Your task to perform on an android device: When is my next appointment? Image 0: 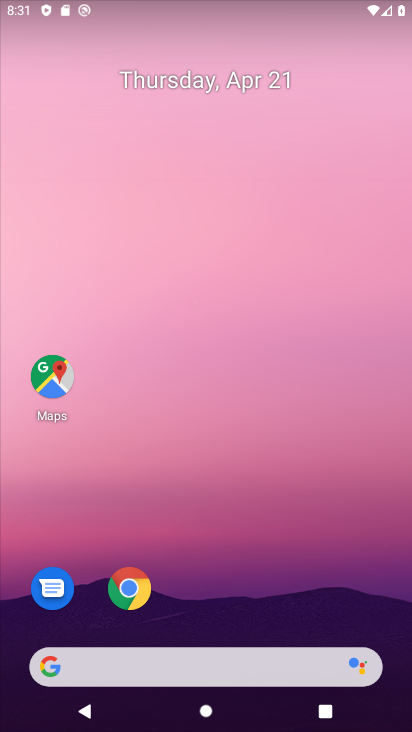
Step 0: drag from (219, 577) to (162, 54)
Your task to perform on an android device: When is my next appointment? Image 1: 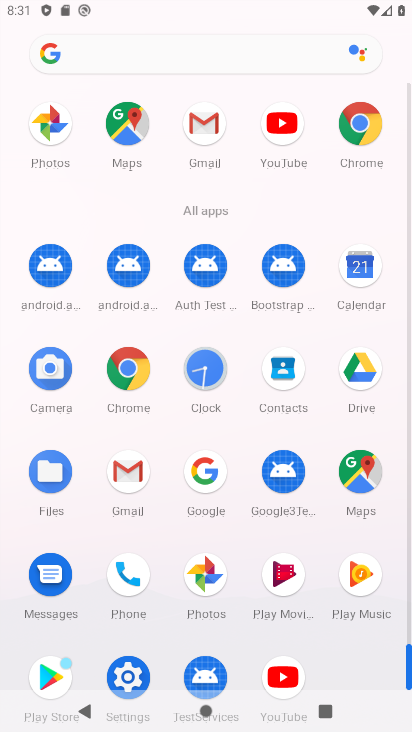
Step 1: drag from (15, 515) to (8, 268)
Your task to perform on an android device: When is my next appointment? Image 2: 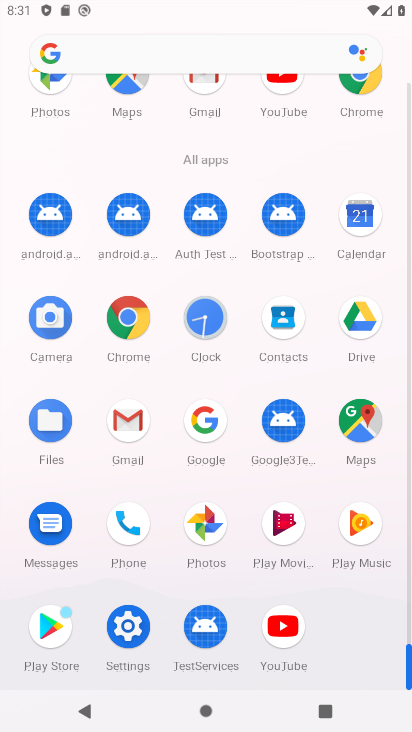
Step 2: drag from (6, 517) to (2, 273)
Your task to perform on an android device: When is my next appointment? Image 3: 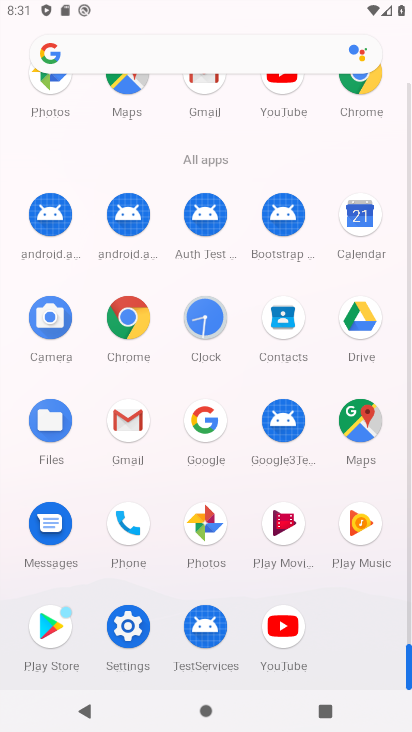
Step 3: click (359, 217)
Your task to perform on an android device: When is my next appointment? Image 4: 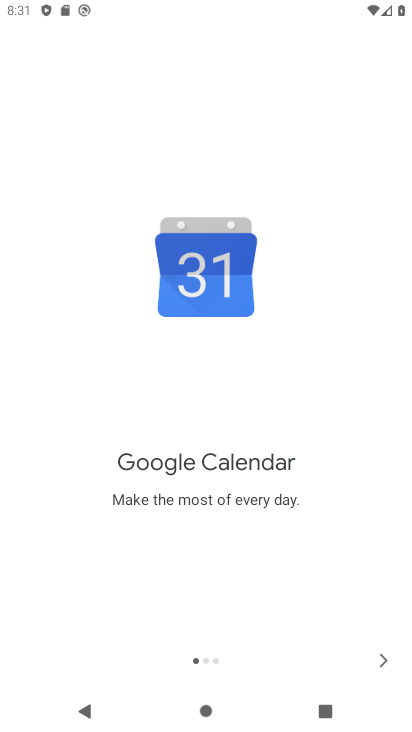
Step 4: click (389, 653)
Your task to perform on an android device: When is my next appointment? Image 5: 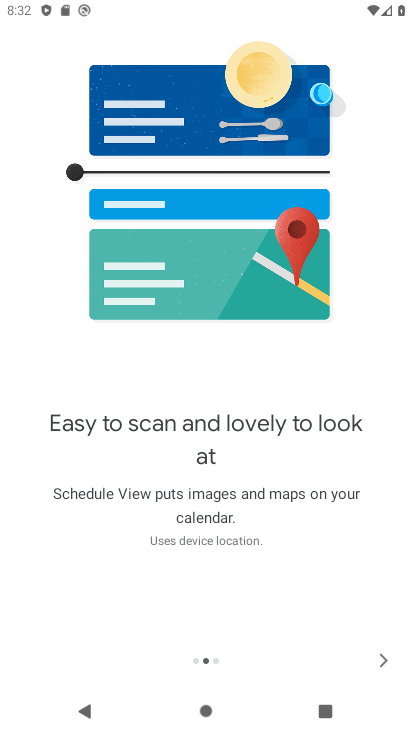
Step 5: click (374, 650)
Your task to perform on an android device: When is my next appointment? Image 6: 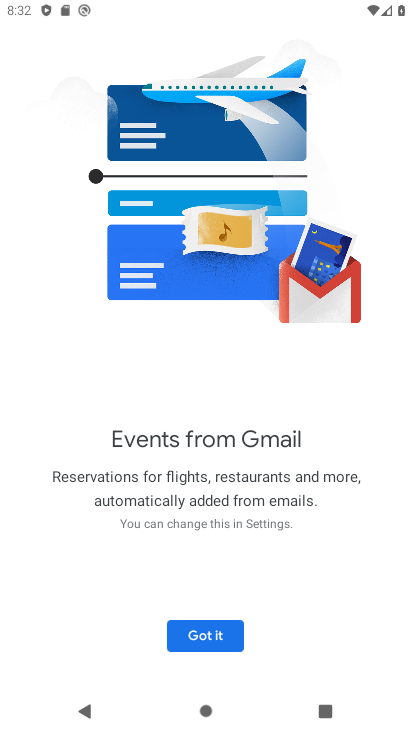
Step 6: click (226, 632)
Your task to perform on an android device: When is my next appointment? Image 7: 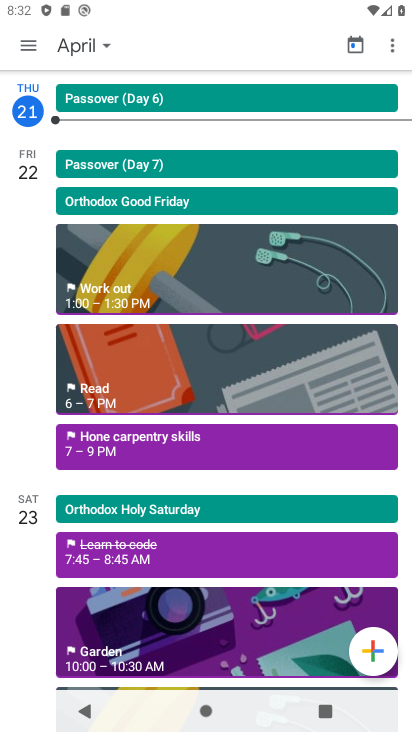
Step 7: click (86, 44)
Your task to perform on an android device: When is my next appointment? Image 8: 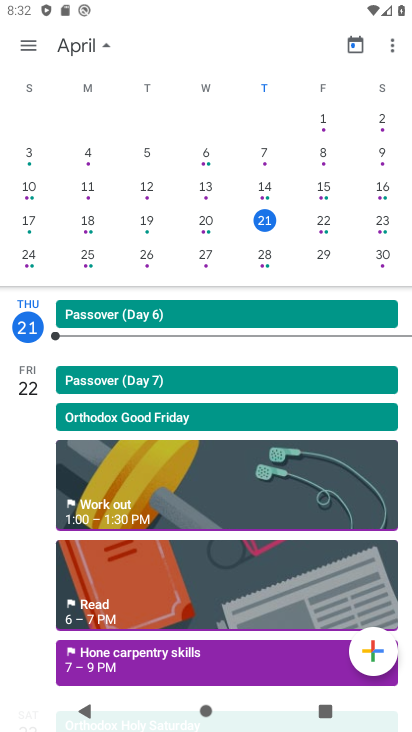
Step 8: click (36, 42)
Your task to perform on an android device: When is my next appointment? Image 9: 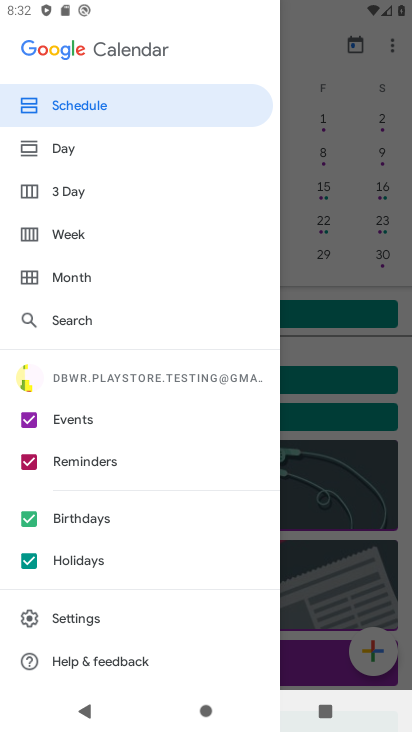
Step 9: click (31, 522)
Your task to perform on an android device: When is my next appointment? Image 10: 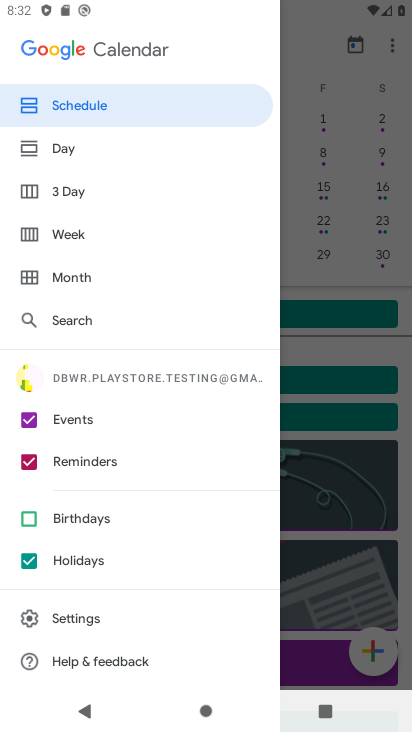
Step 10: click (28, 567)
Your task to perform on an android device: When is my next appointment? Image 11: 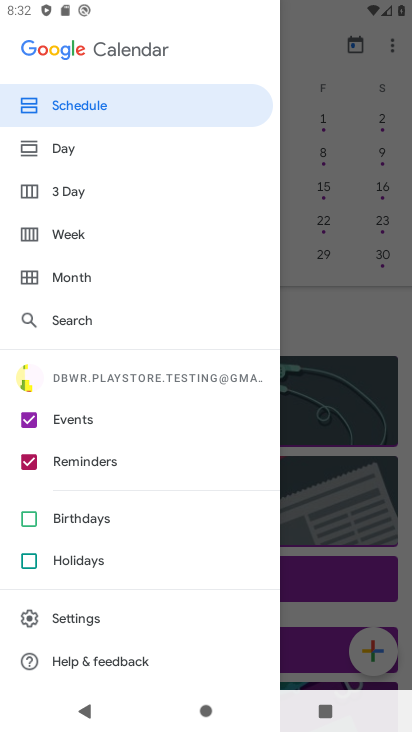
Step 11: click (31, 418)
Your task to perform on an android device: When is my next appointment? Image 12: 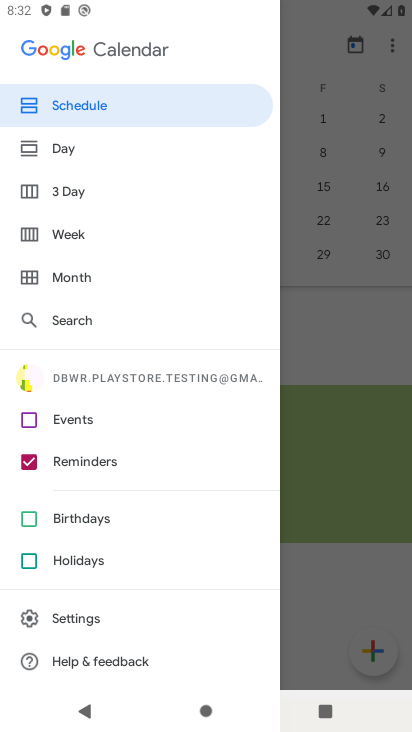
Step 12: click (374, 227)
Your task to perform on an android device: When is my next appointment? Image 13: 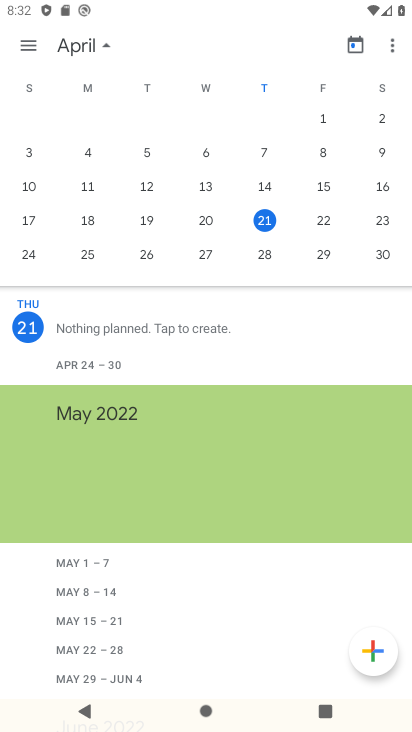
Step 13: click (18, 45)
Your task to perform on an android device: When is my next appointment? Image 14: 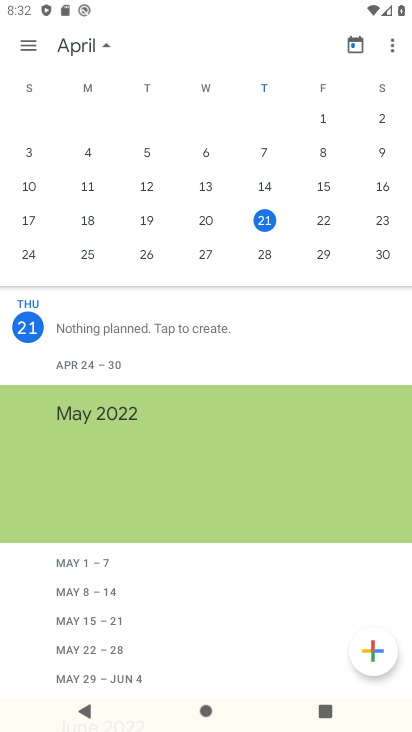
Step 14: click (37, 60)
Your task to perform on an android device: When is my next appointment? Image 15: 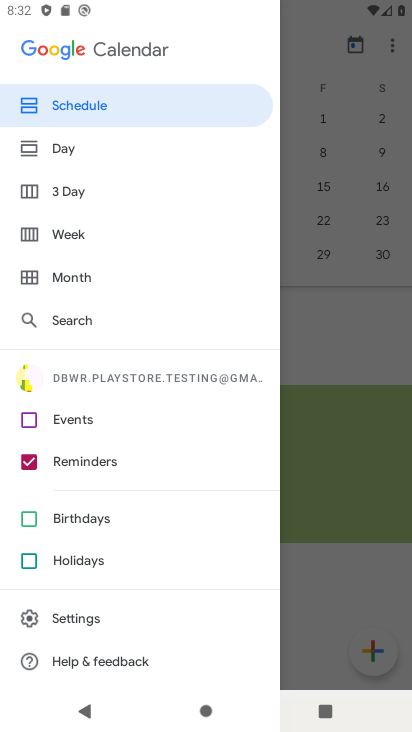
Step 15: click (79, 106)
Your task to perform on an android device: When is my next appointment? Image 16: 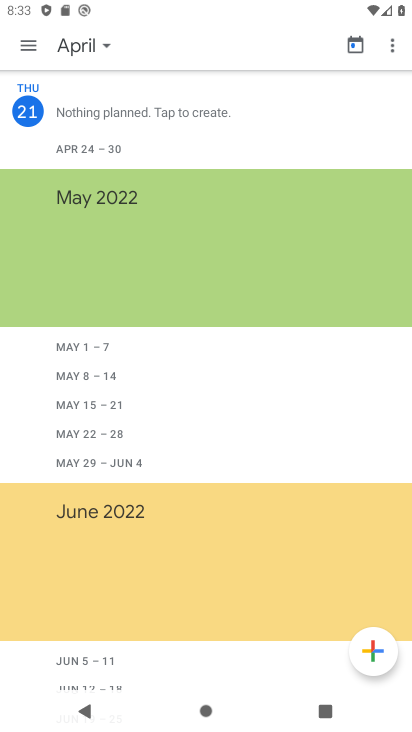
Step 16: task complete